Your task to perform on an android device: turn on showing notifications on the lock screen Image 0: 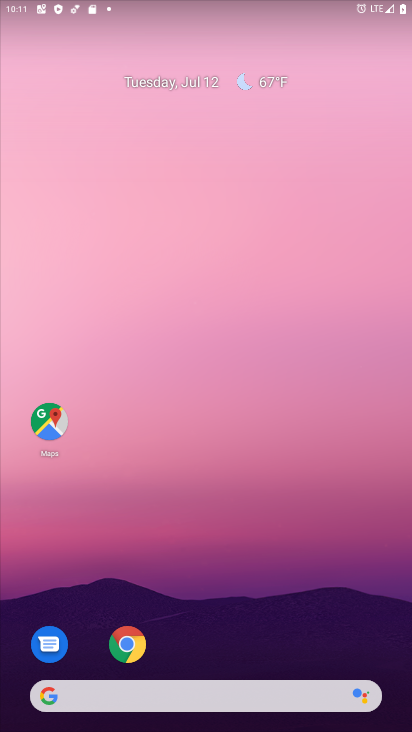
Step 0: drag from (219, 604) to (277, 361)
Your task to perform on an android device: turn on showing notifications on the lock screen Image 1: 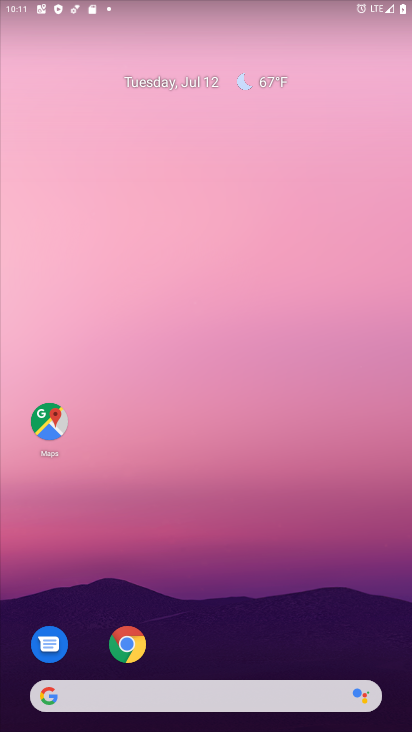
Step 1: drag from (192, 485) to (209, 187)
Your task to perform on an android device: turn on showing notifications on the lock screen Image 2: 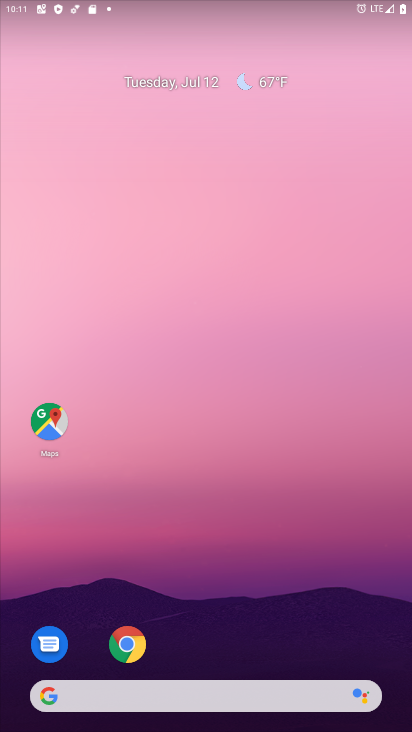
Step 2: drag from (210, 559) to (236, 250)
Your task to perform on an android device: turn on showing notifications on the lock screen Image 3: 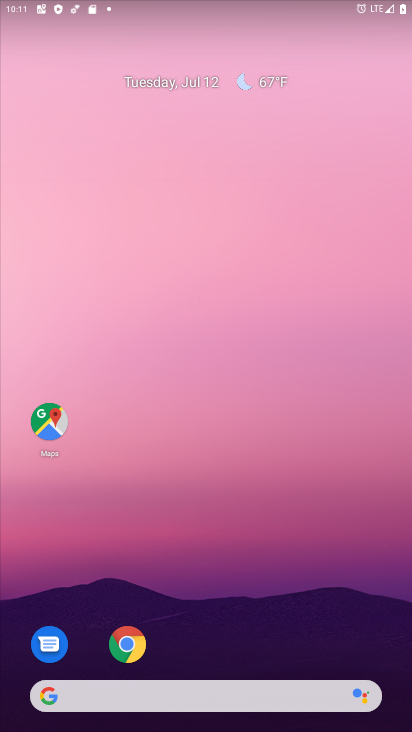
Step 3: drag from (175, 656) to (175, 118)
Your task to perform on an android device: turn on showing notifications on the lock screen Image 4: 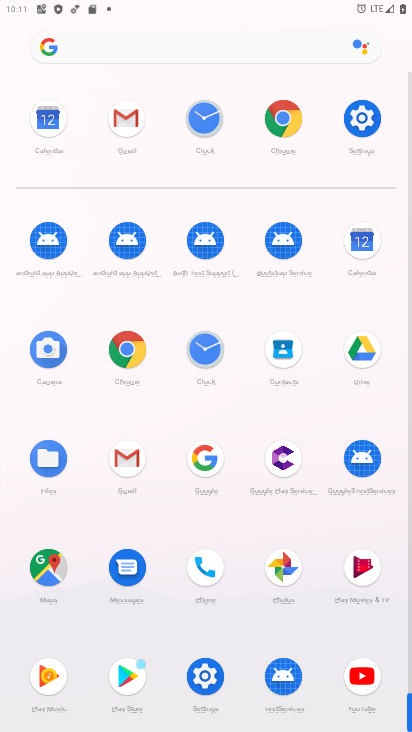
Step 4: click (351, 108)
Your task to perform on an android device: turn on showing notifications on the lock screen Image 5: 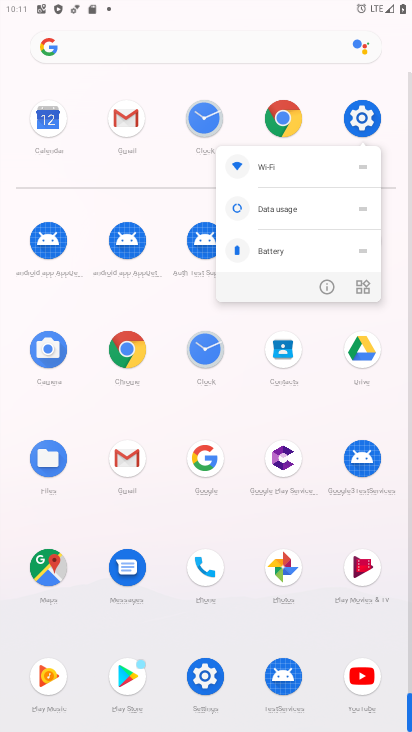
Step 5: click (318, 293)
Your task to perform on an android device: turn on showing notifications on the lock screen Image 6: 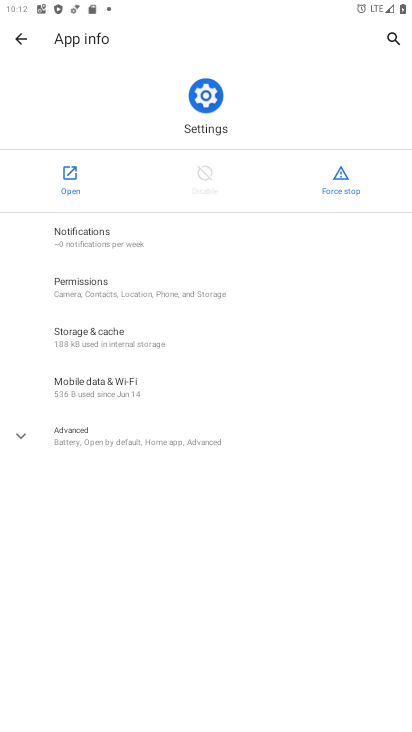
Step 6: click (64, 175)
Your task to perform on an android device: turn on showing notifications on the lock screen Image 7: 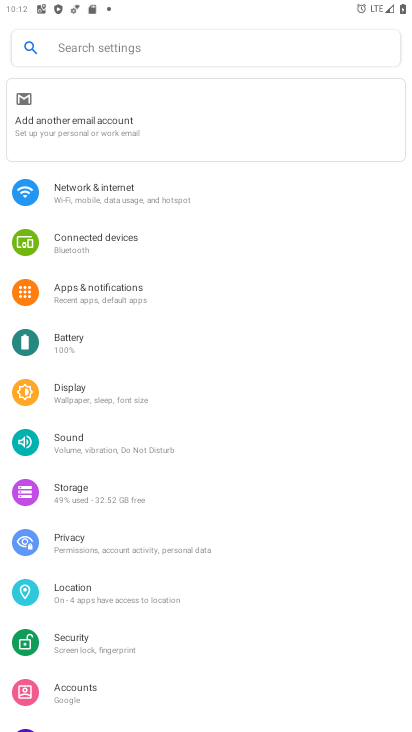
Step 7: click (109, 292)
Your task to perform on an android device: turn on showing notifications on the lock screen Image 8: 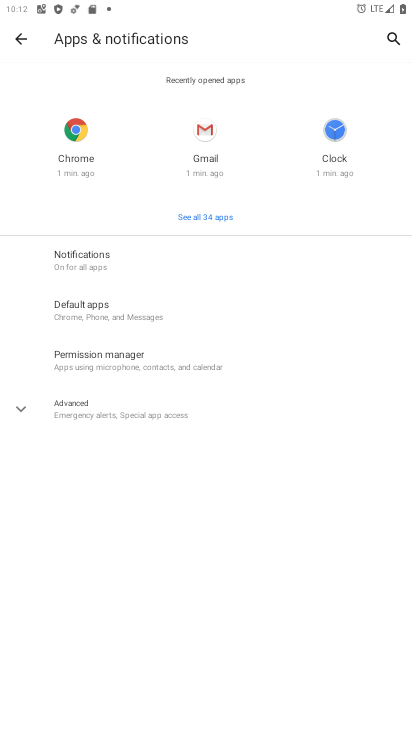
Step 8: click (103, 257)
Your task to perform on an android device: turn on showing notifications on the lock screen Image 9: 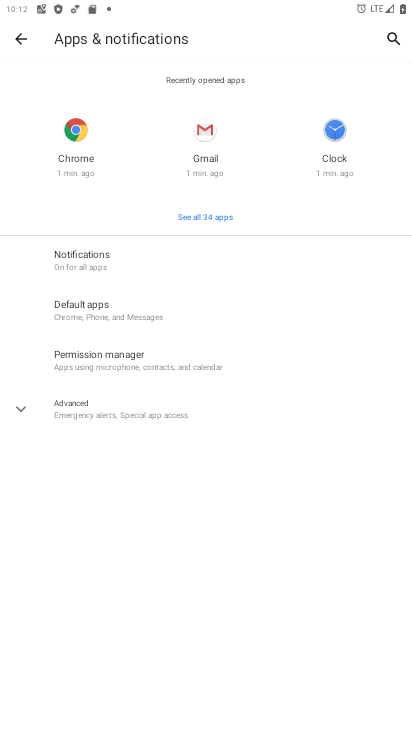
Step 9: click (103, 257)
Your task to perform on an android device: turn on showing notifications on the lock screen Image 10: 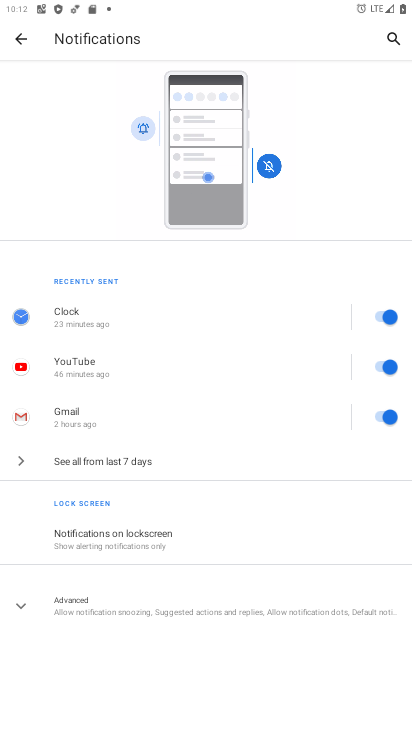
Step 10: click (113, 541)
Your task to perform on an android device: turn on showing notifications on the lock screen Image 11: 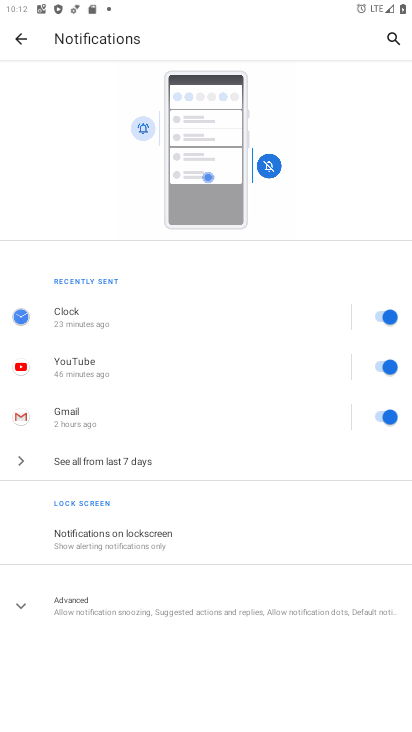
Step 11: click (107, 539)
Your task to perform on an android device: turn on showing notifications on the lock screen Image 12: 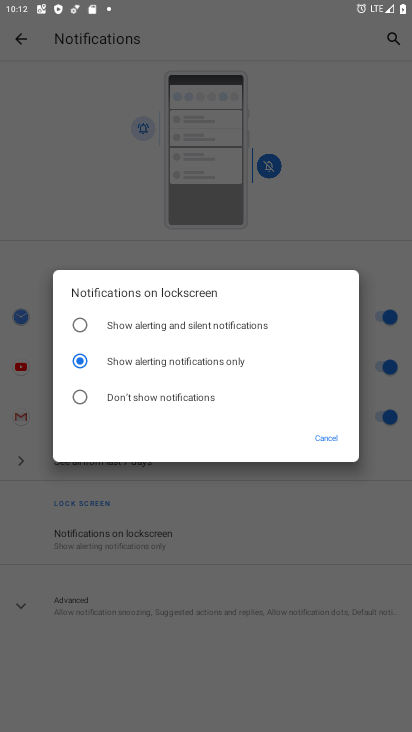
Step 12: click (91, 326)
Your task to perform on an android device: turn on showing notifications on the lock screen Image 13: 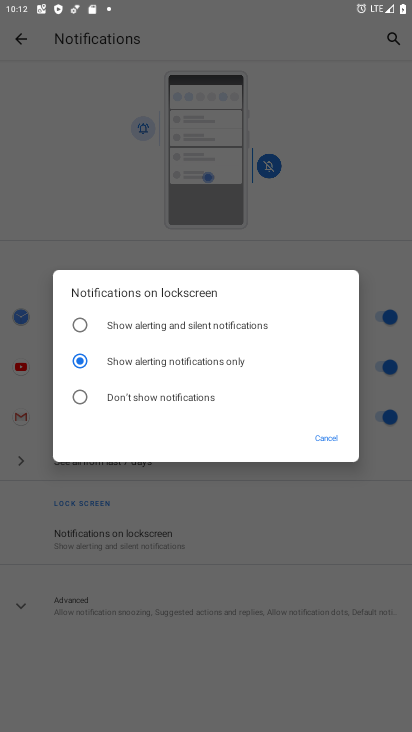
Step 13: task complete